Your task to perform on an android device: add a label to a message in the gmail app Image 0: 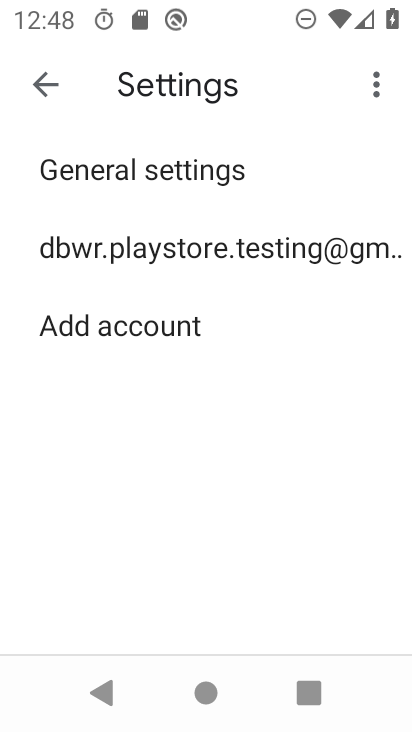
Step 0: click (115, 257)
Your task to perform on an android device: add a label to a message in the gmail app Image 1: 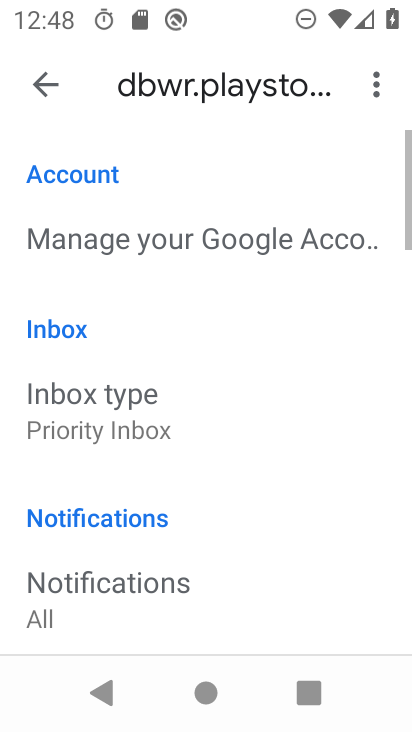
Step 1: click (42, 101)
Your task to perform on an android device: add a label to a message in the gmail app Image 2: 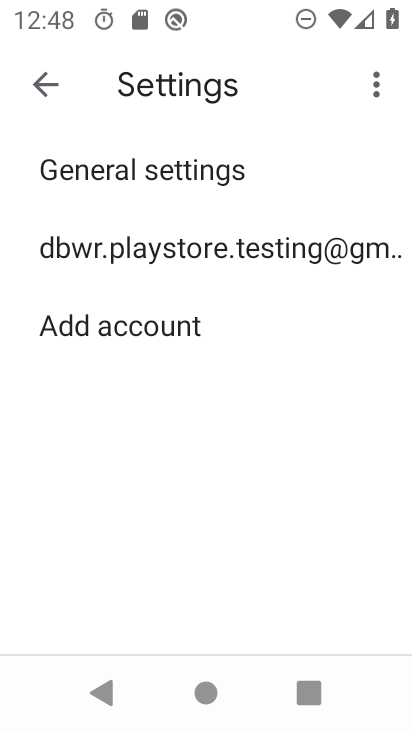
Step 2: click (42, 101)
Your task to perform on an android device: add a label to a message in the gmail app Image 3: 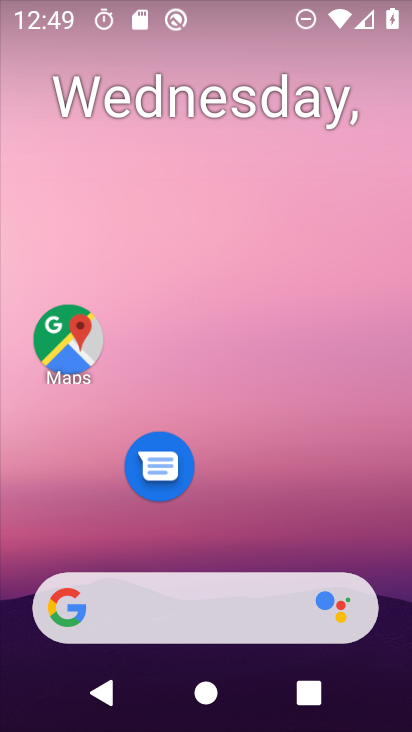
Step 3: drag from (288, 517) to (290, 75)
Your task to perform on an android device: add a label to a message in the gmail app Image 4: 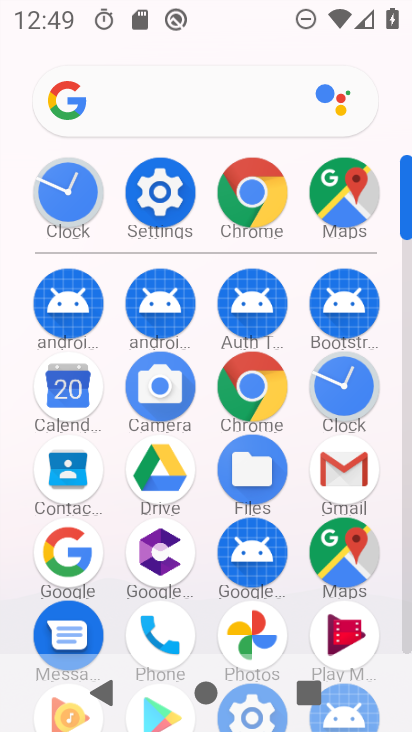
Step 4: click (335, 486)
Your task to perform on an android device: add a label to a message in the gmail app Image 5: 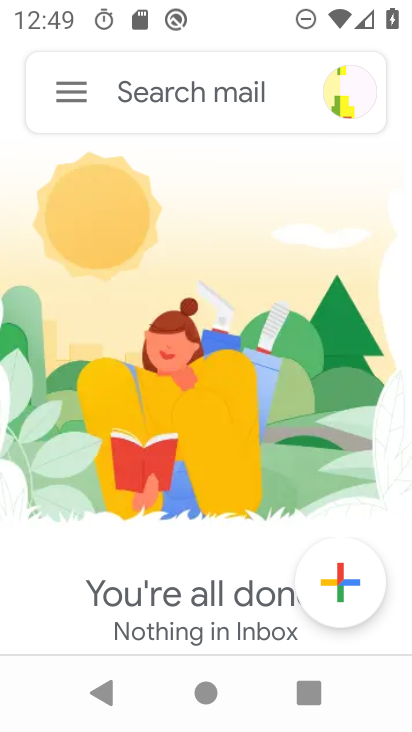
Step 5: click (89, 85)
Your task to perform on an android device: add a label to a message in the gmail app Image 6: 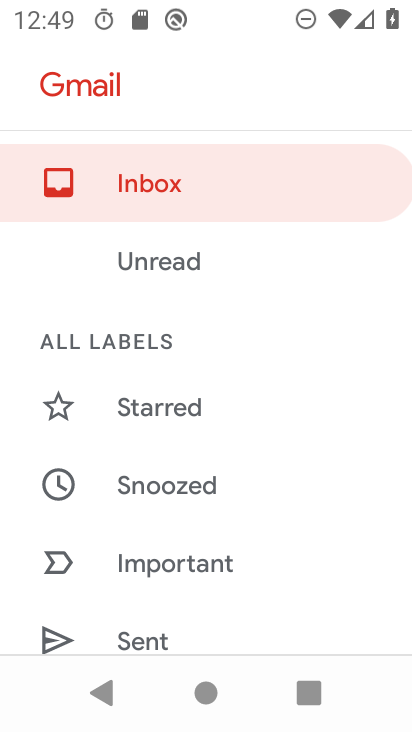
Step 6: drag from (147, 468) to (201, 163)
Your task to perform on an android device: add a label to a message in the gmail app Image 7: 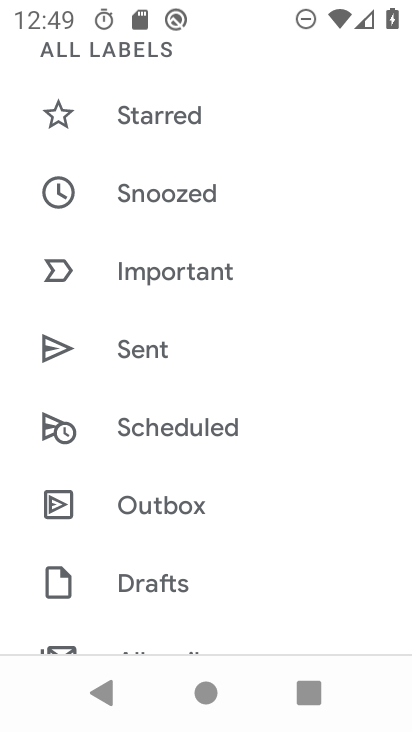
Step 7: drag from (196, 635) to (264, 280)
Your task to perform on an android device: add a label to a message in the gmail app Image 8: 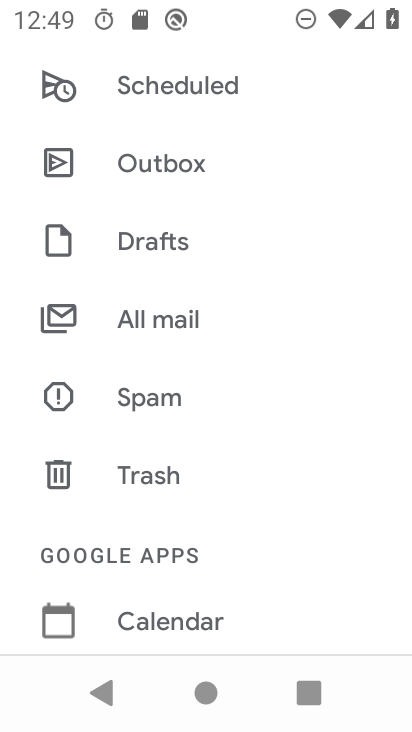
Step 8: click (173, 316)
Your task to perform on an android device: add a label to a message in the gmail app Image 9: 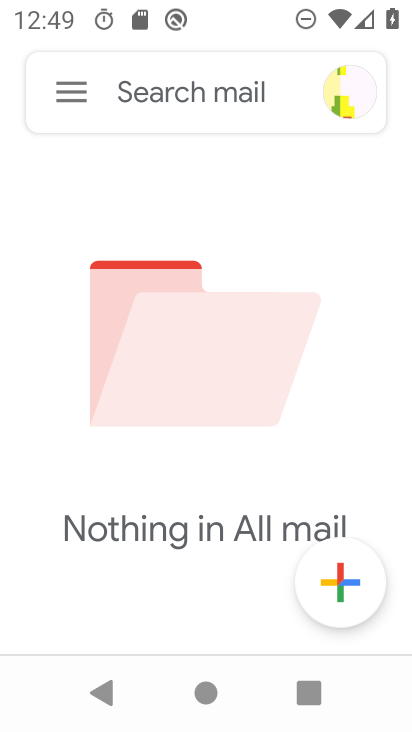
Step 9: task complete